Your task to perform on an android device: empty trash in the gmail app Image 0: 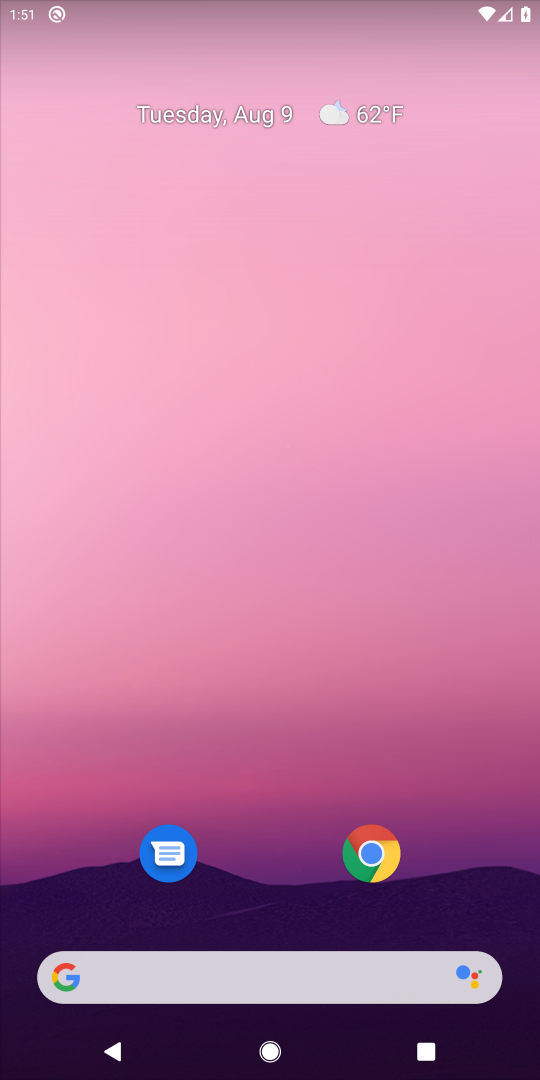
Step 0: drag from (274, 899) to (231, 13)
Your task to perform on an android device: empty trash in the gmail app Image 1: 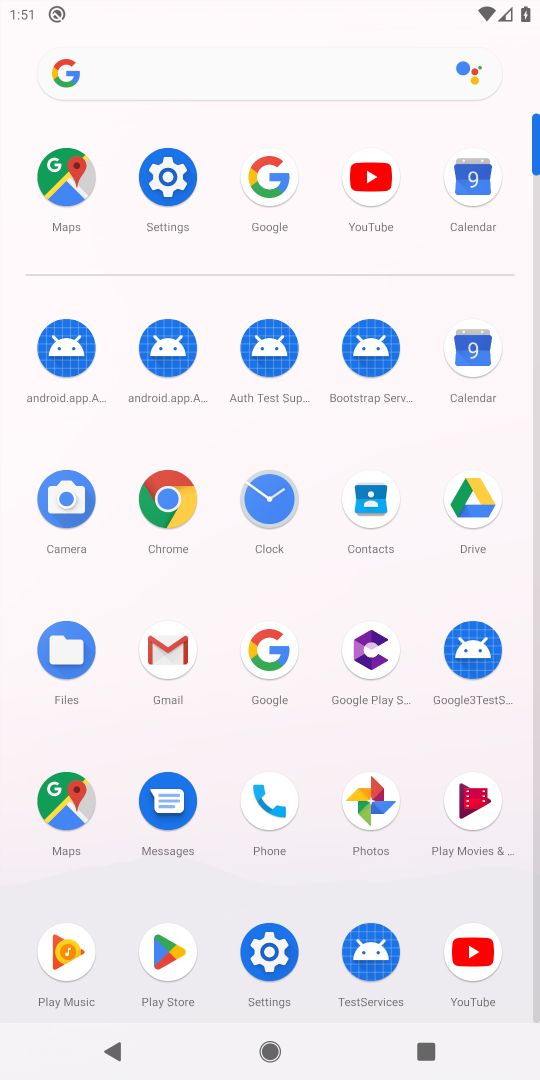
Step 1: click (181, 655)
Your task to perform on an android device: empty trash in the gmail app Image 2: 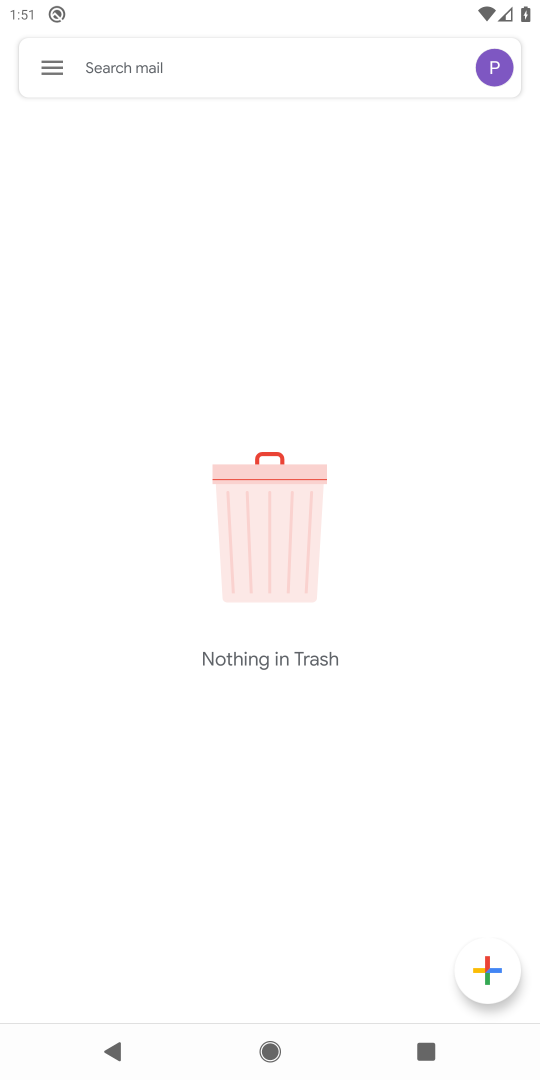
Step 2: click (40, 73)
Your task to perform on an android device: empty trash in the gmail app Image 3: 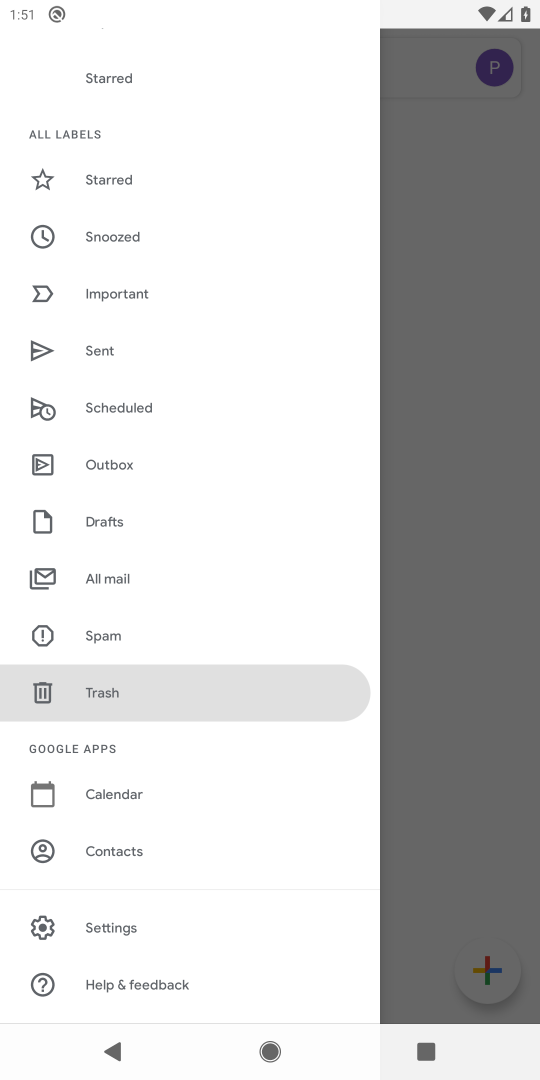
Step 3: click (102, 694)
Your task to perform on an android device: empty trash in the gmail app Image 4: 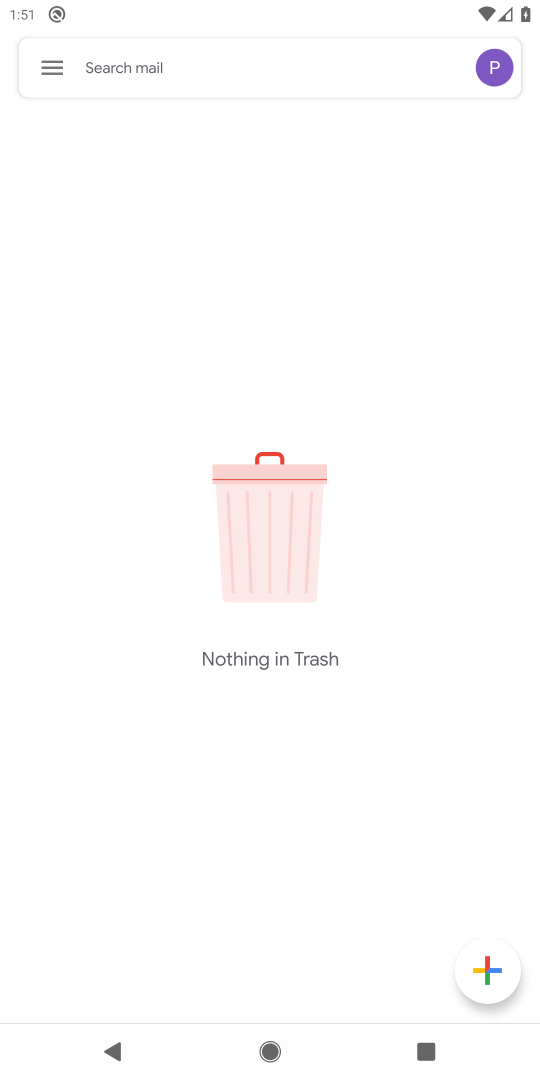
Step 4: task complete